Your task to perform on an android device: toggle wifi Image 0: 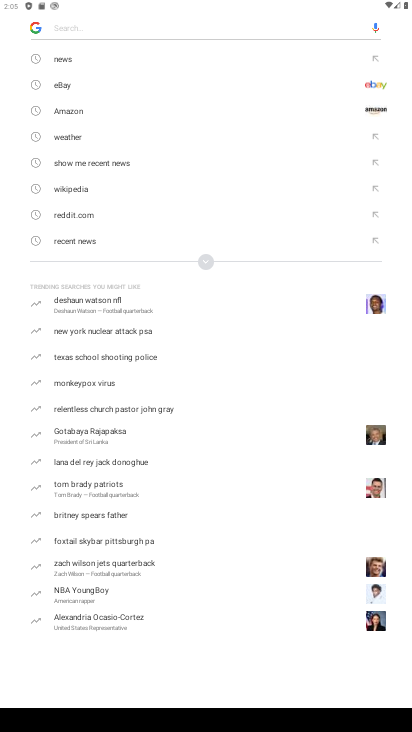
Step 0: press home button
Your task to perform on an android device: toggle wifi Image 1: 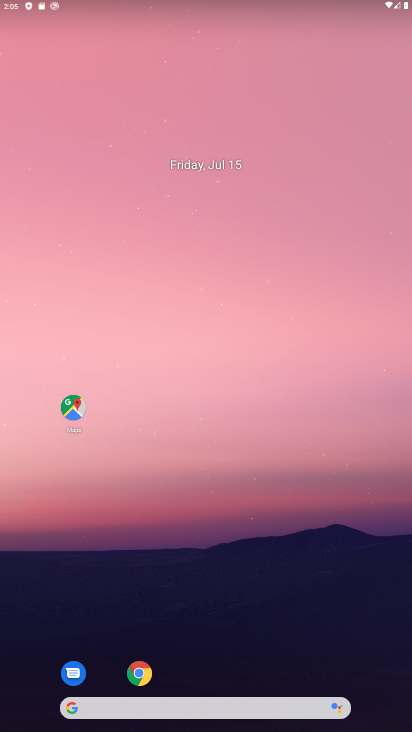
Step 1: drag from (186, 683) to (186, 374)
Your task to perform on an android device: toggle wifi Image 2: 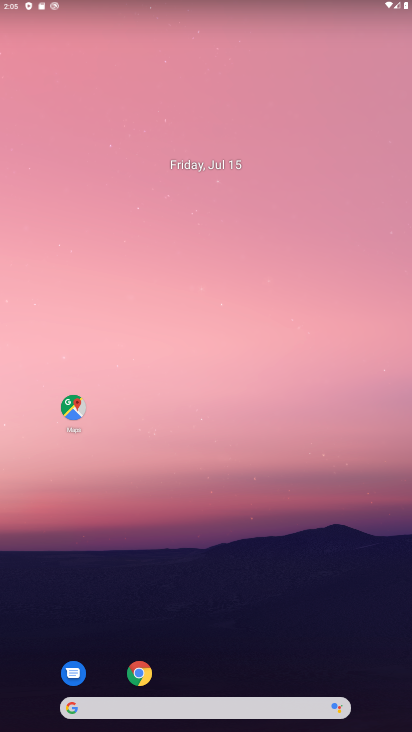
Step 2: drag from (198, 691) to (231, 252)
Your task to perform on an android device: toggle wifi Image 3: 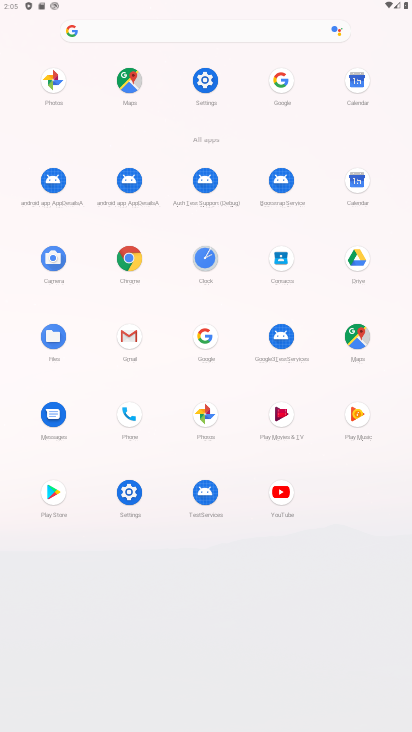
Step 3: click (202, 84)
Your task to perform on an android device: toggle wifi Image 4: 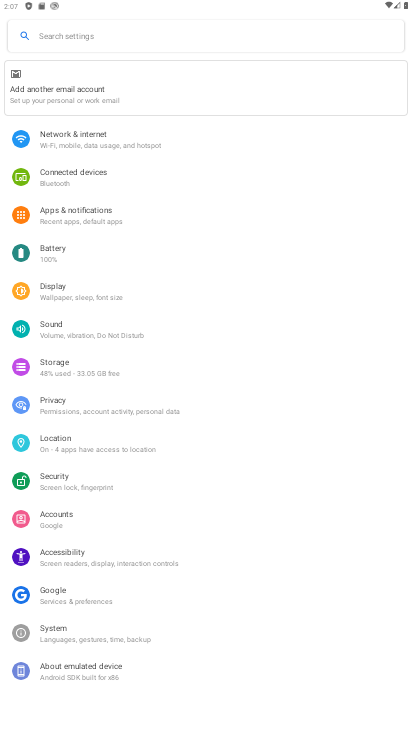
Step 4: click (60, 145)
Your task to perform on an android device: toggle wifi Image 5: 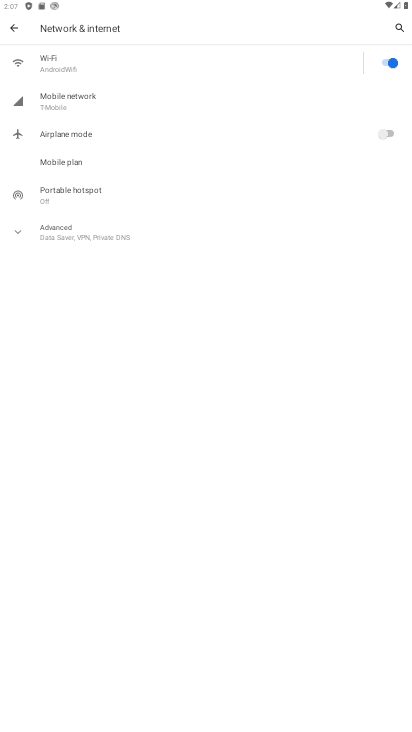
Step 5: click (386, 58)
Your task to perform on an android device: toggle wifi Image 6: 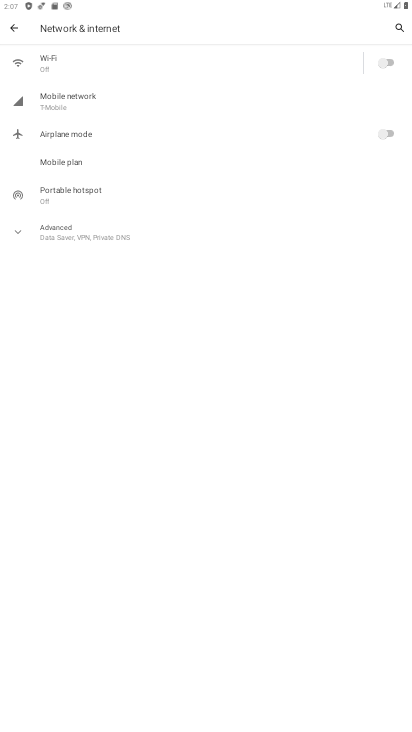
Step 6: task complete